Your task to perform on an android device: Open notification settings Image 0: 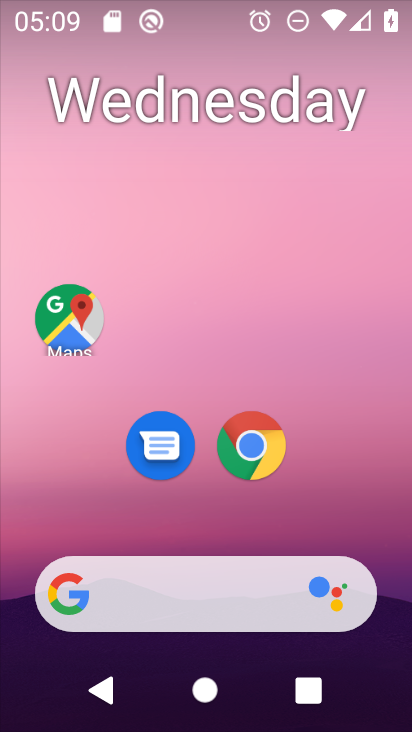
Step 0: drag from (176, 503) to (203, 127)
Your task to perform on an android device: Open notification settings Image 1: 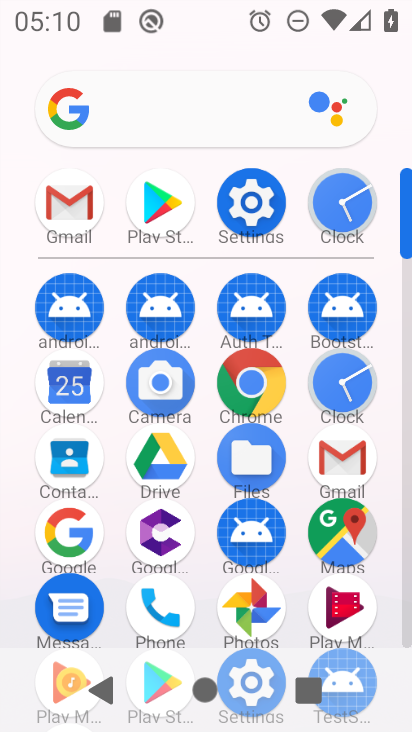
Step 1: click (233, 199)
Your task to perform on an android device: Open notification settings Image 2: 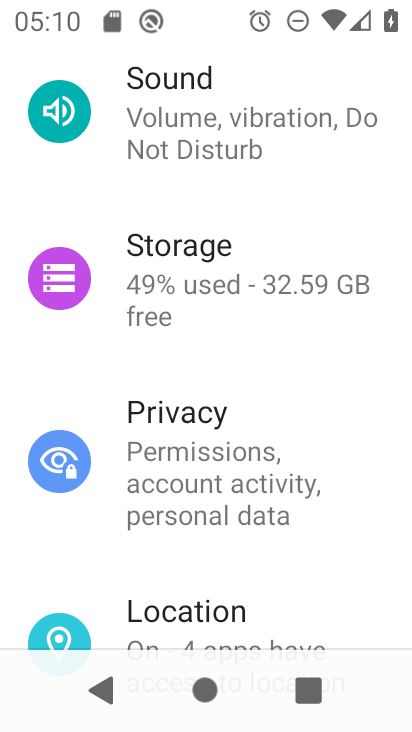
Step 2: drag from (233, 199) to (235, 591)
Your task to perform on an android device: Open notification settings Image 3: 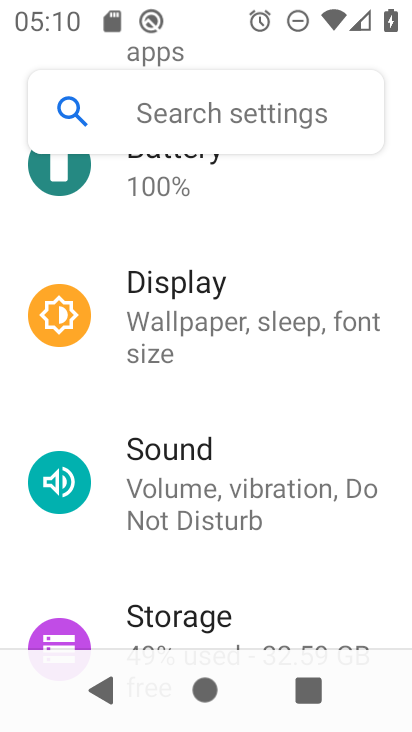
Step 3: drag from (126, 278) to (163, 621)
Your task to perform on an android device: Open notification settings Image 4: 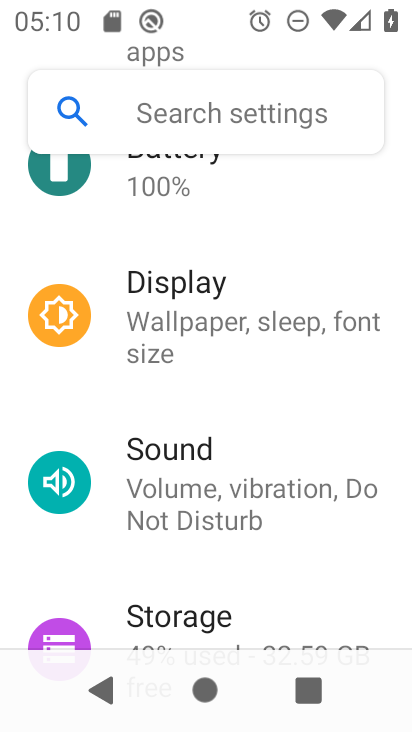
Step 4: drag from (219, 239) to (278, 582)
Your task to perform on an android device: Open notification settings Image 5: 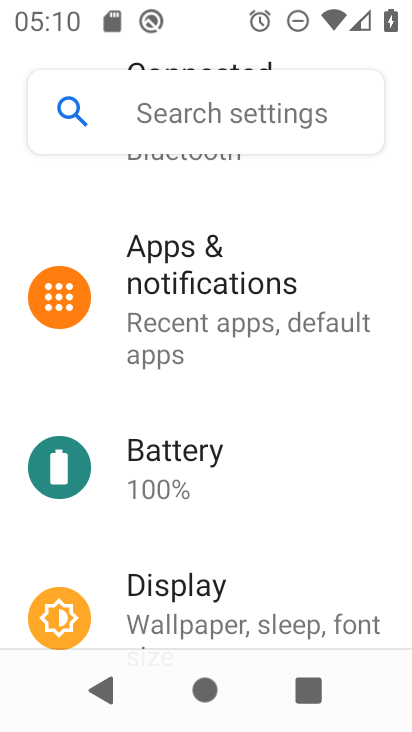
Step 5: click (232, 285)
Your task to perform on an android device: Open notification settings Image 6: 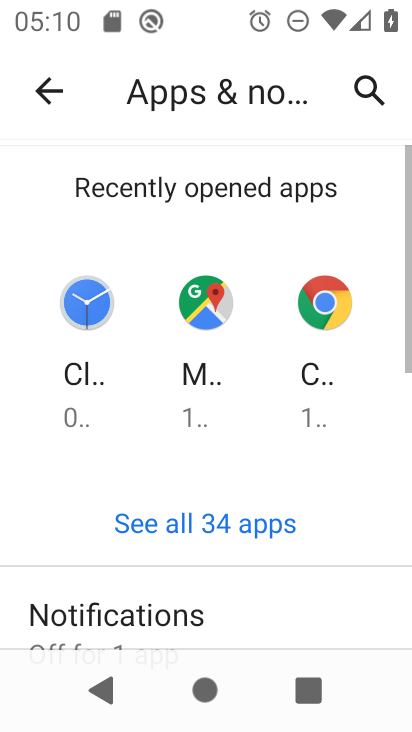
Step 6: task complete